Your task to perform on an android device: change text size in settings app Image 0: 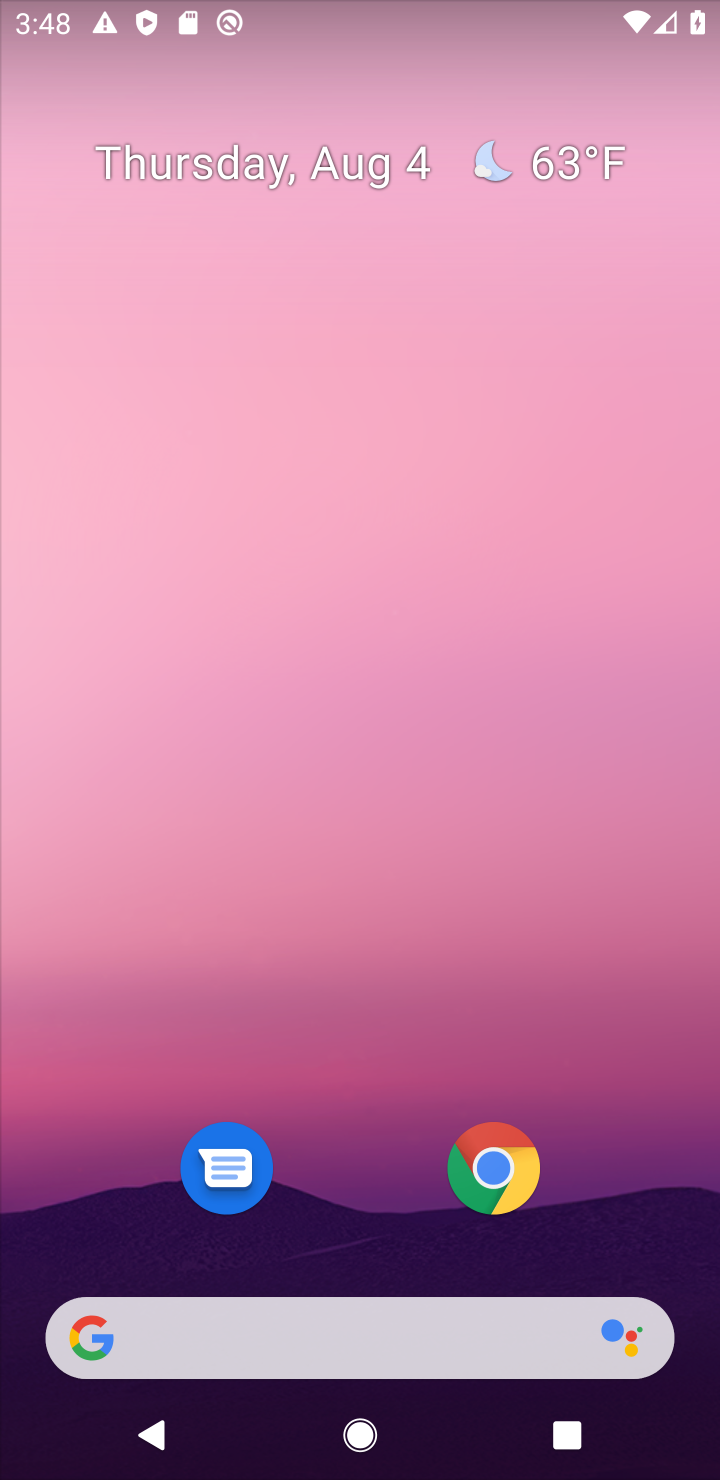
Step 0: drag from (398, 1274) to (316, 91)
Your task to perform on an android device: change text size in settings app Image 1: 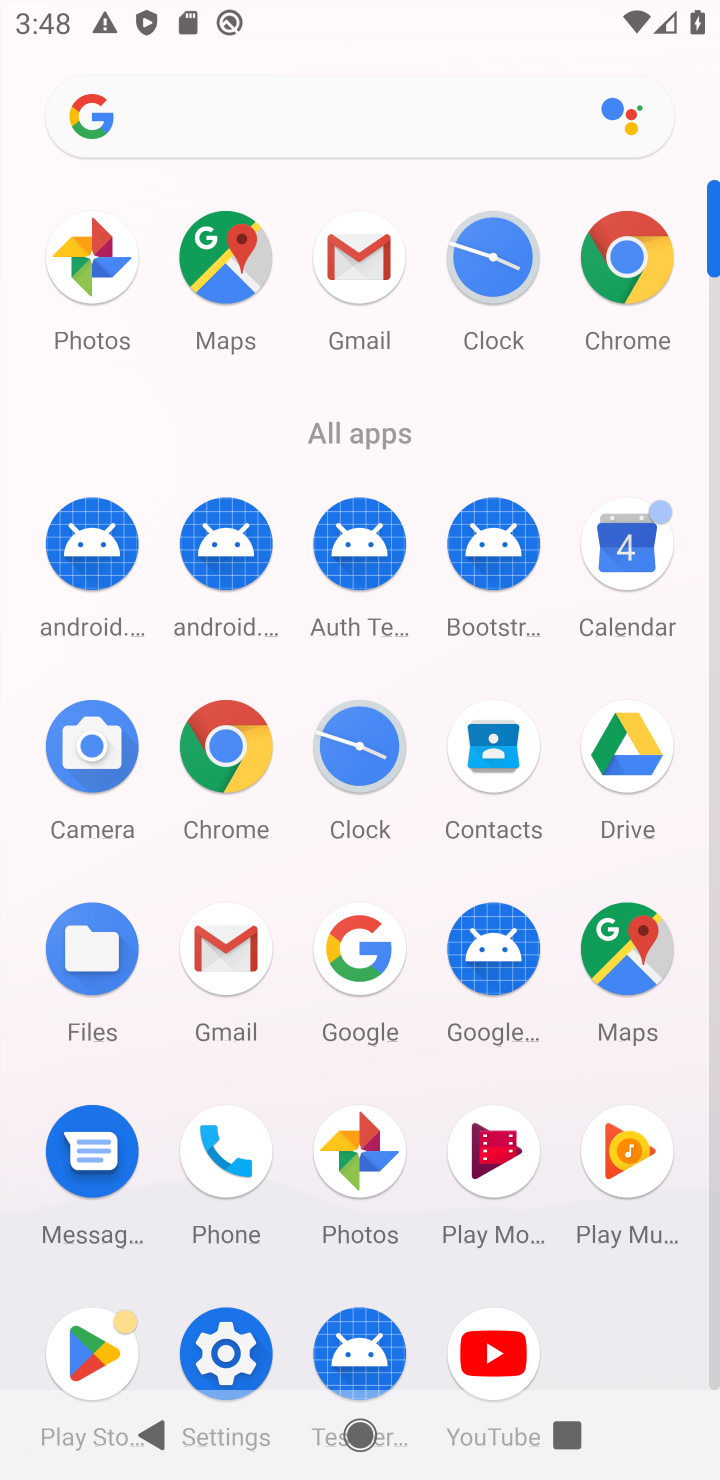
Step 1: click (190, 1329)
Your task to perform on an android device: change text size in settings app Image 2: 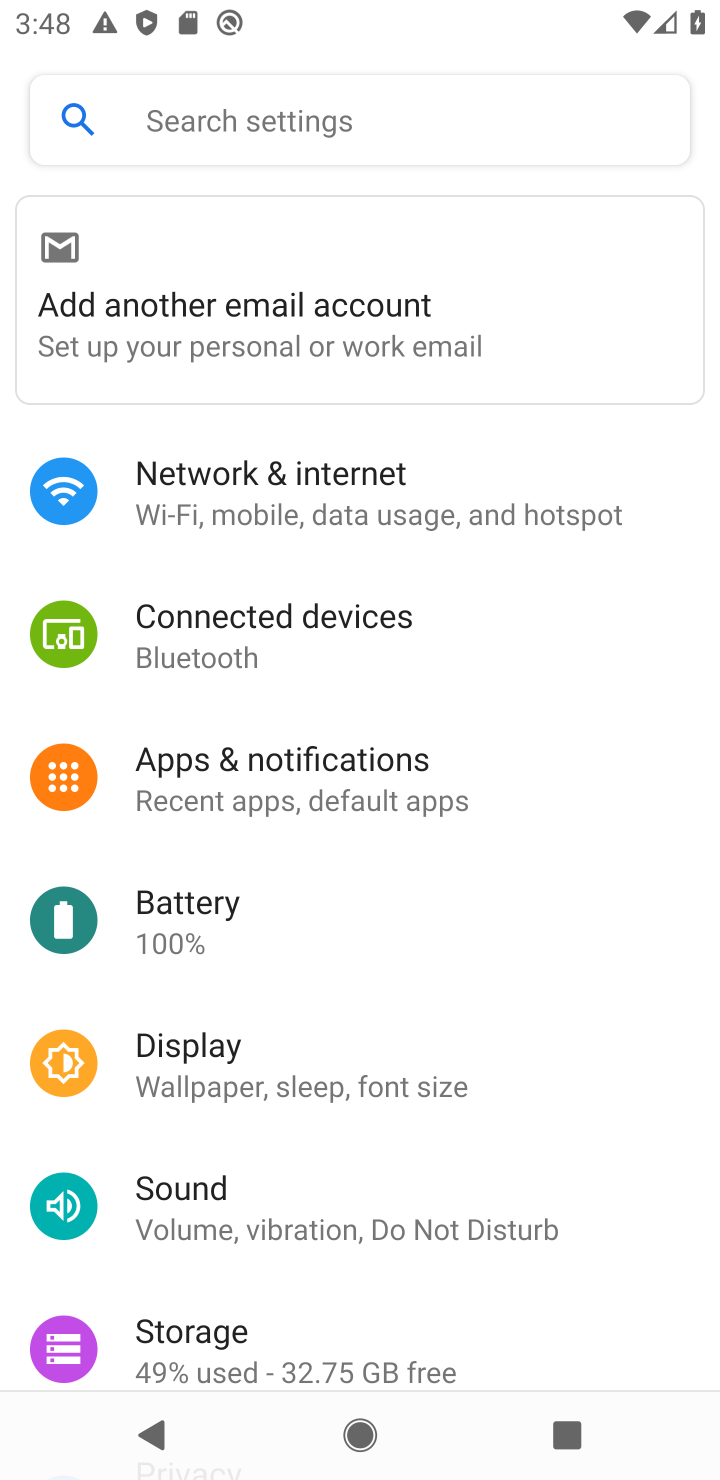
Step 2: click (244, 1083)
Your task to perform on an android device: change text size in settings app Image 3: 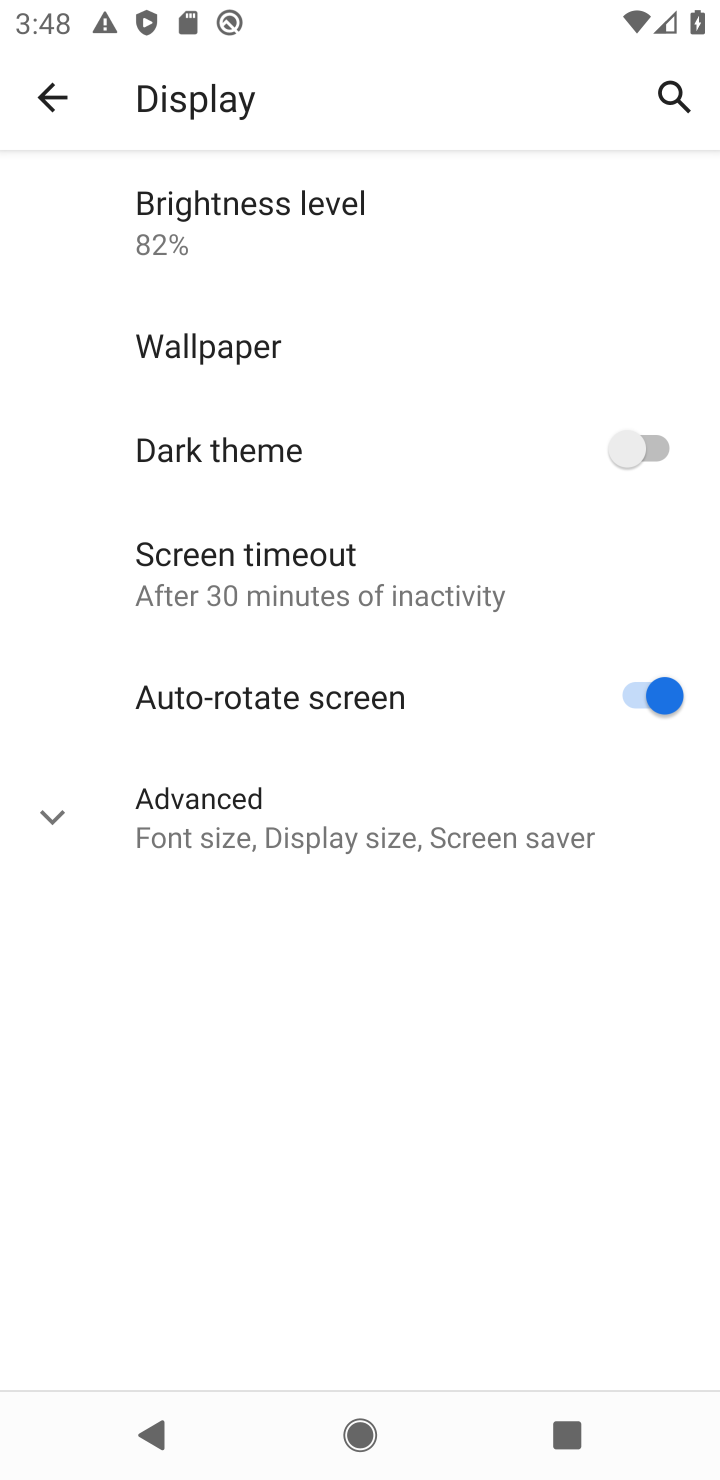
Step 3: click (122, 829)
Your task to perform on an android device: change text size in settings app Image 4: 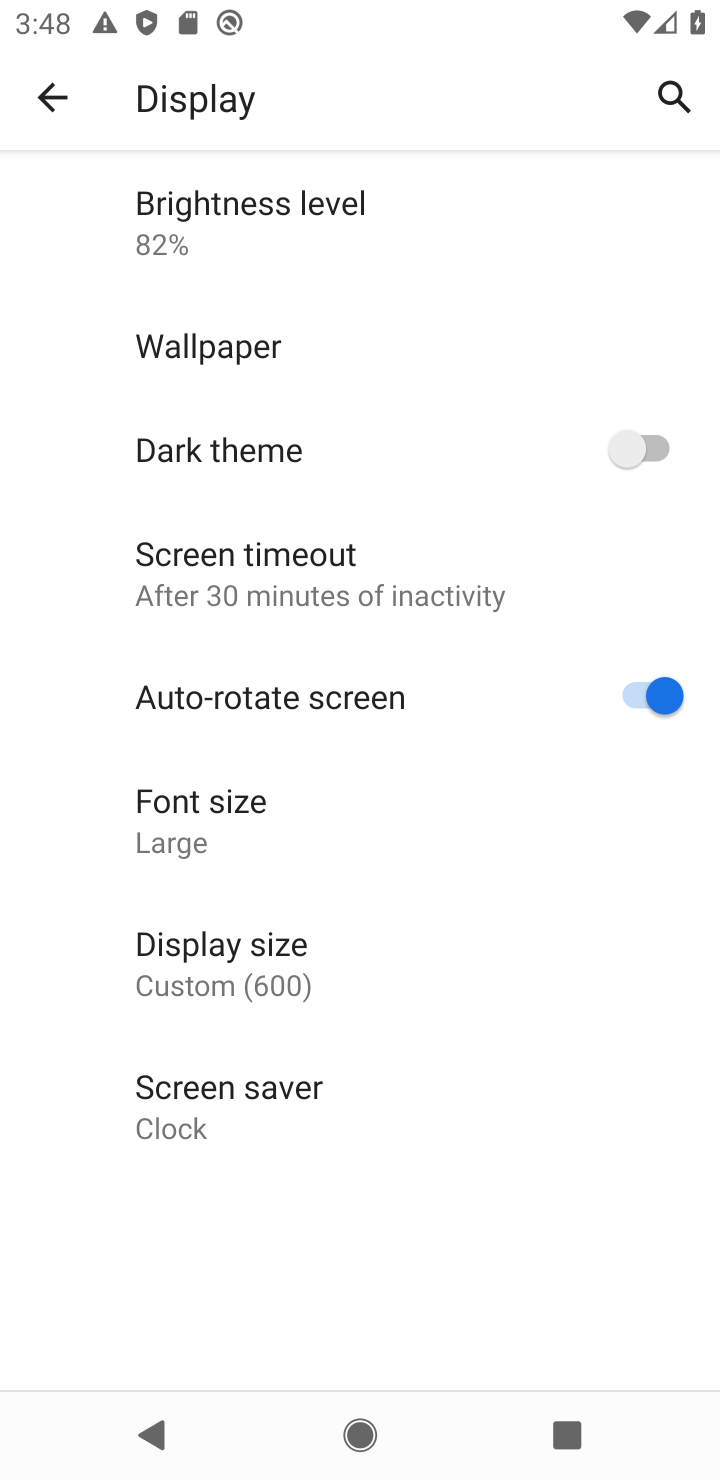
Step 4: click (205, 979)
Your task to perform on an android device: change text size in settings app Image 5: 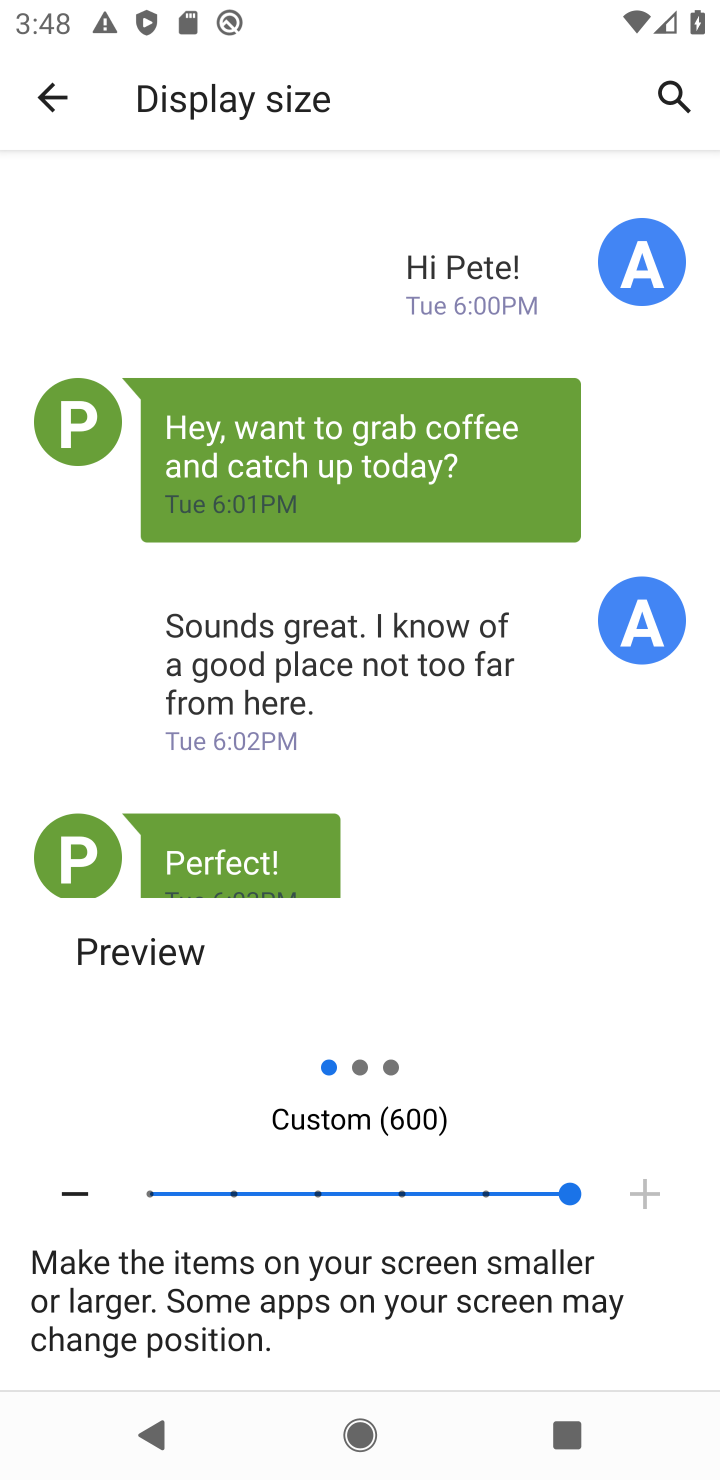
Step 5: click (20, 88)
Your task to perform on an android device: change text size in settings app Image 6: 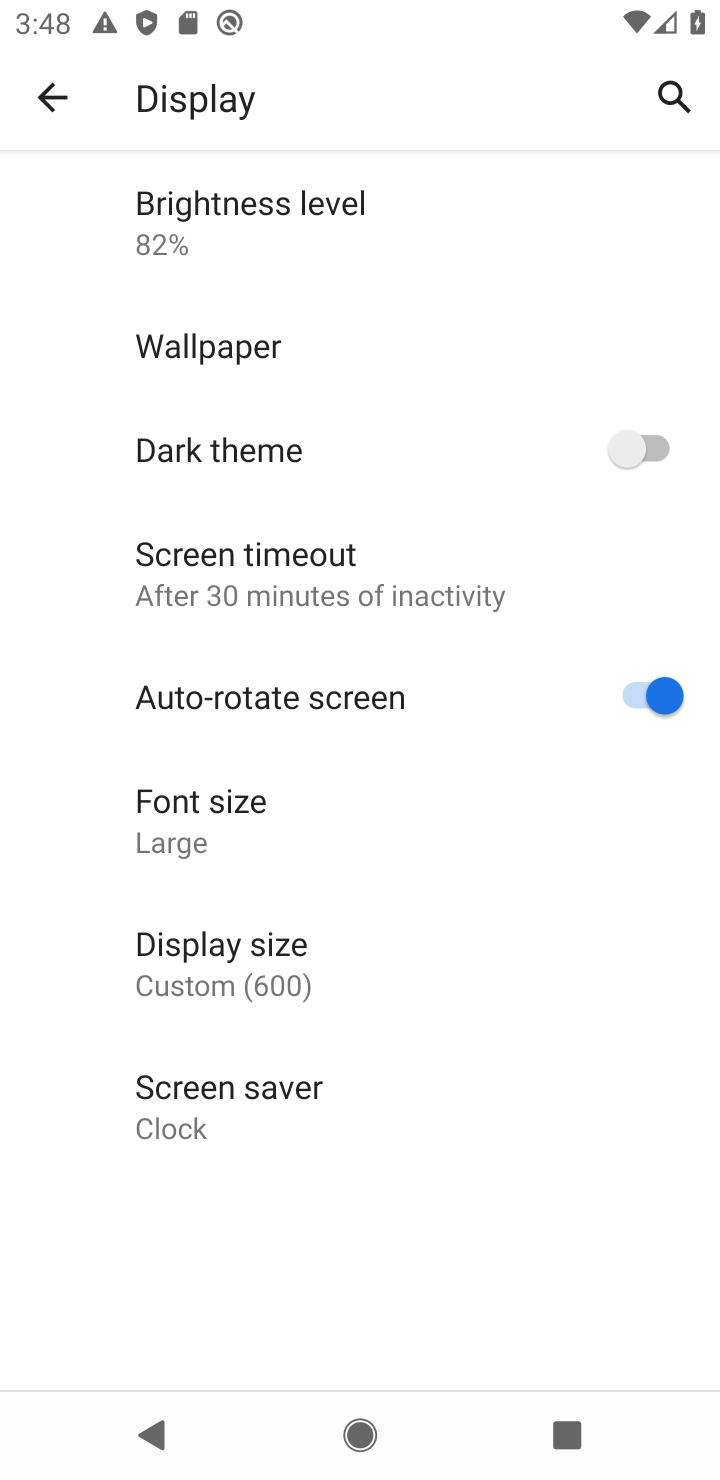
Step 6: click (285, 798)
Your task to perform on an android device: change text size in settings app Image 7: 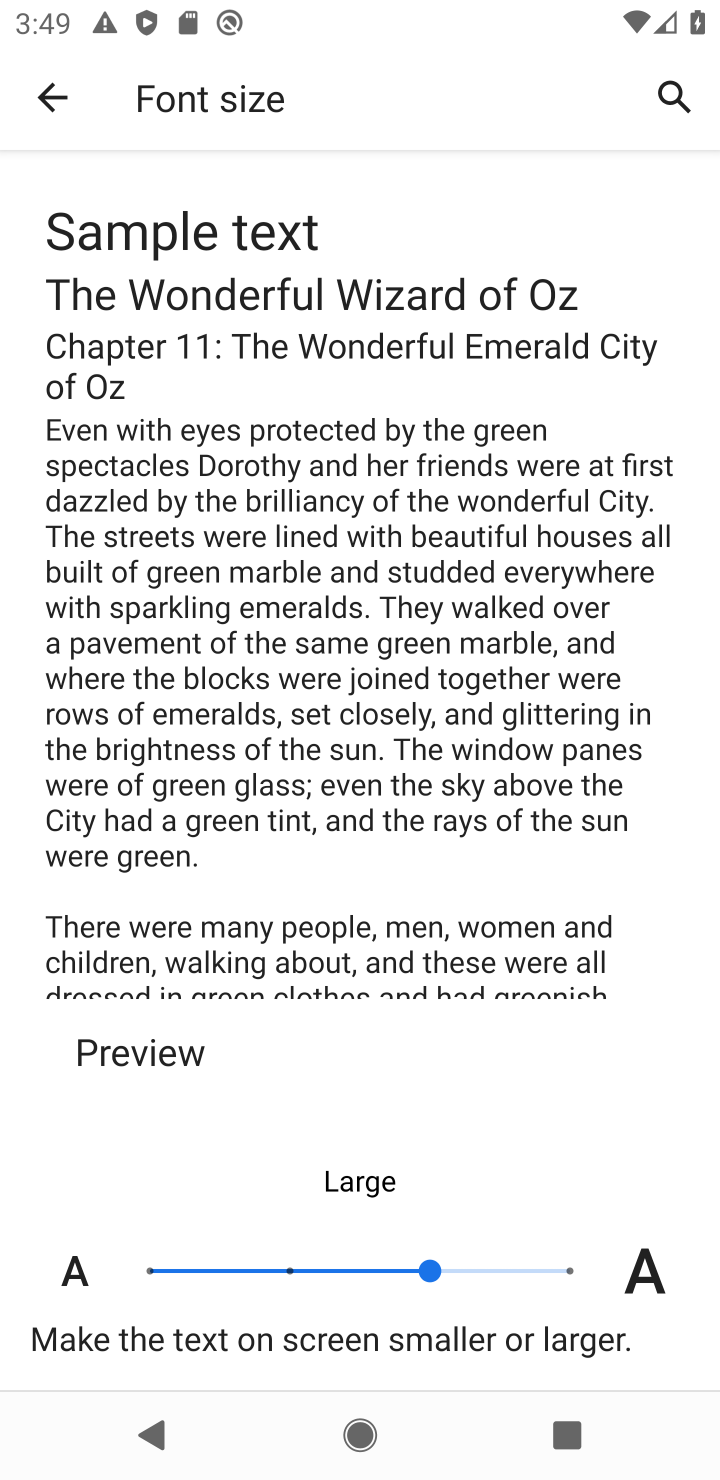
Step 7: click (294, 1266)
Your task to perform on an android device: change text size in settings app Image 8: 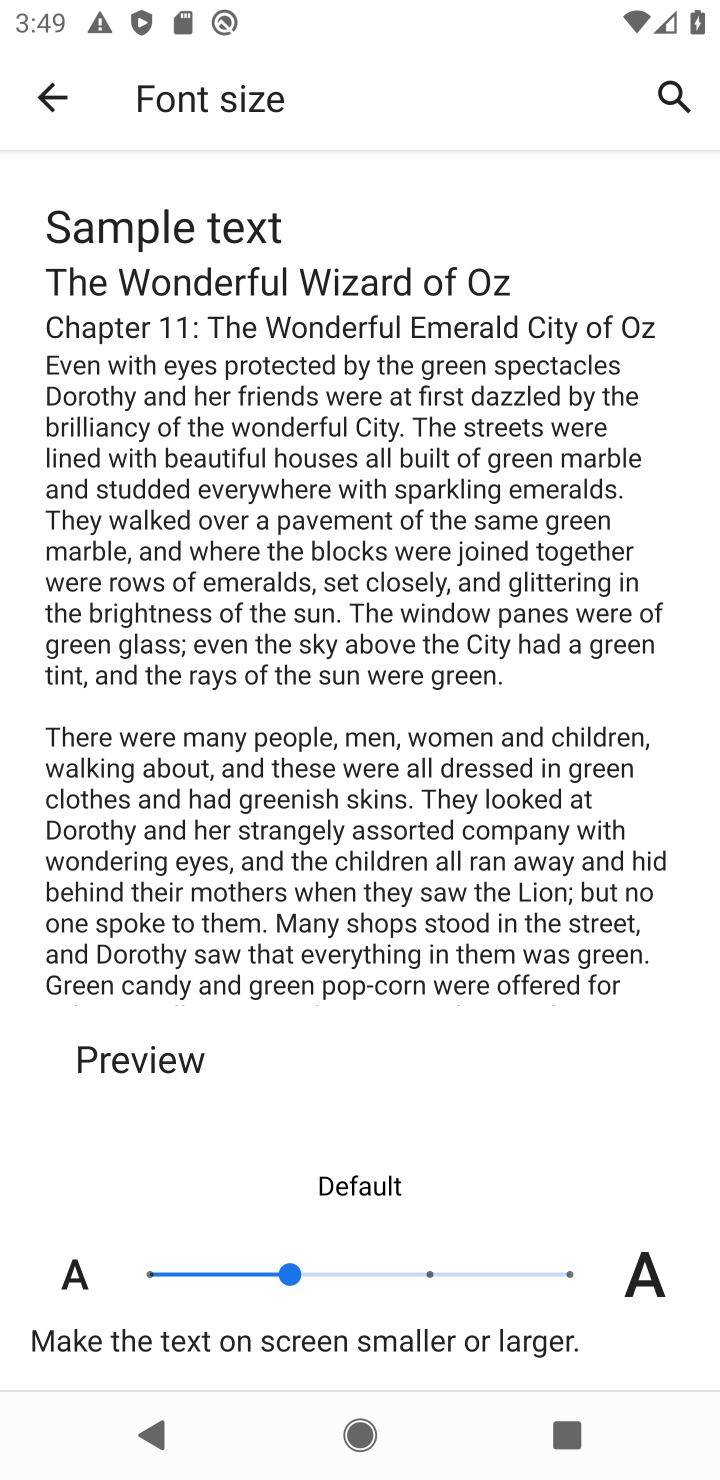
Step 8: task complete